Your task to perform on an android device: find photos in the google photos app Image 0: 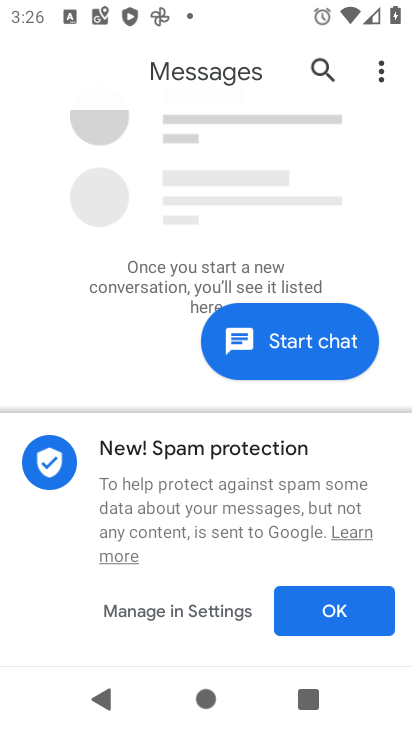
Step 0: press home button
Your task to perform on an android device: find photos in the google photos app Image 1: 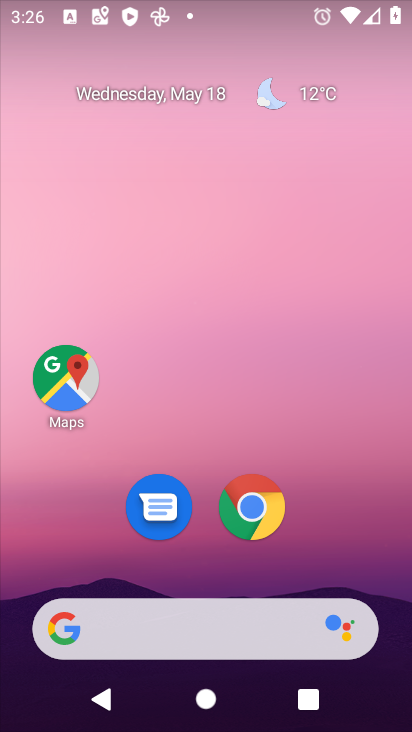
Step 1: drag from (397, 619) to (309, 91)
Your task to perform on an android device: find photos in the google photos app Image 2: 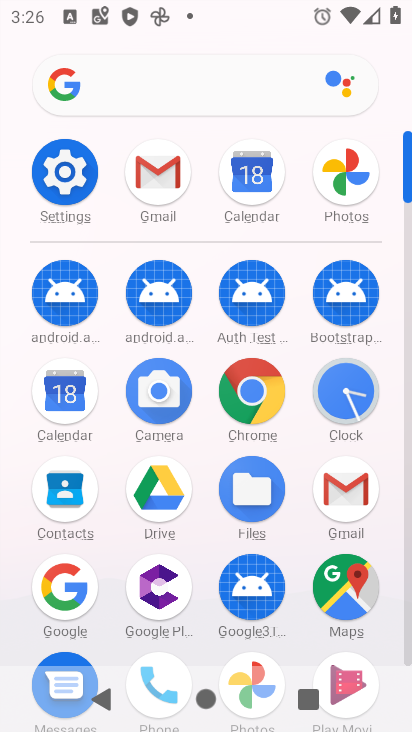
Step 2: click (407, 649)
Your task to perform on an android device: find photos in the google photos app Image 3: 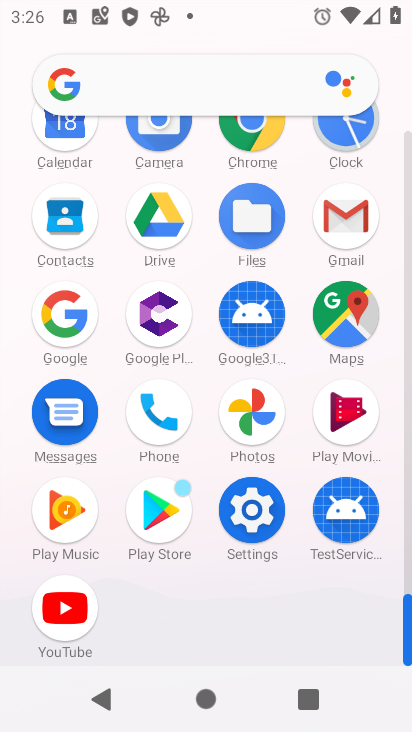
Step 3: click (248, 412)
Your task to perform on an android device: find photos in the google photos app Image 4: 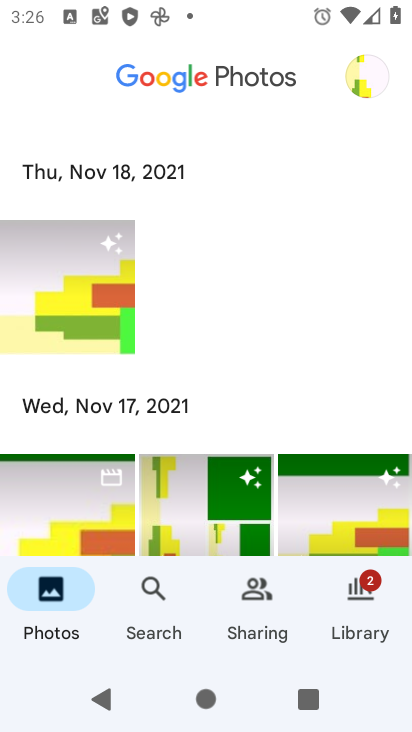
Step 4: task complete